Your task to perform on an android device: Check the weather Image 0: 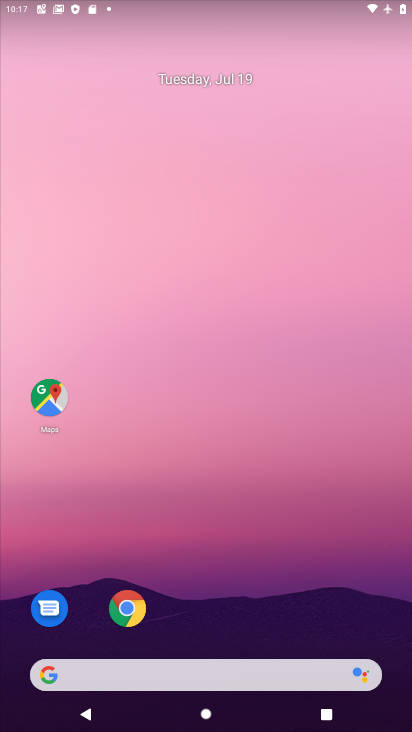
Step 0: drag from (334, 590) to (282, 47)
Your task to perform on an android device: Check the weather Image 1: 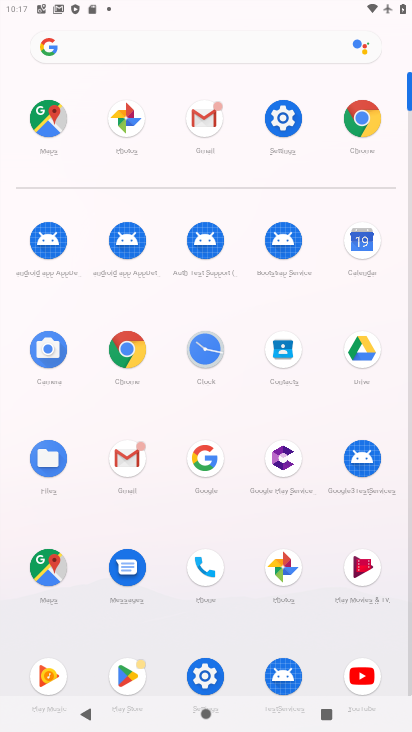
Step 1: click (122, 345)
Your task to perform on an android device: Check the weather Image 2: 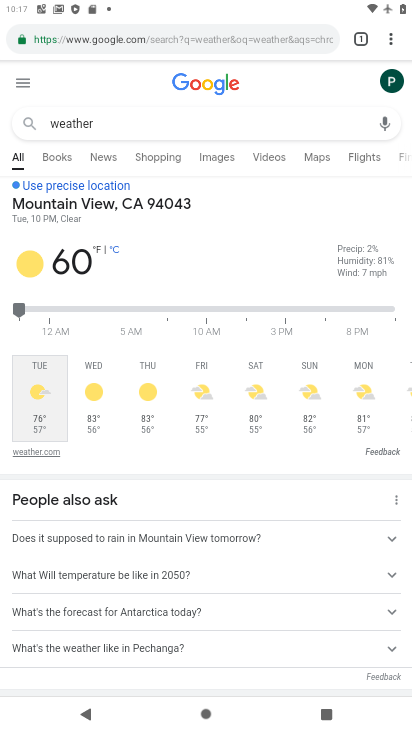
Step 2: task complete